Your task to perform on an android device: turn on bluetooth scan Image 0: 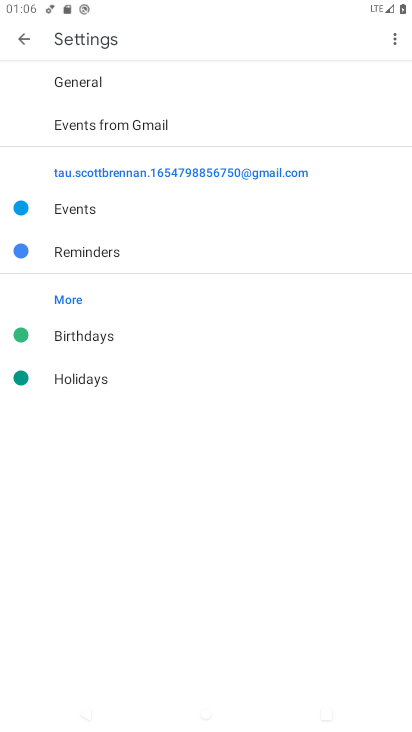
Step 0: press home button
Your task to perform on an android device: turn on bluetooth scan Image 1: 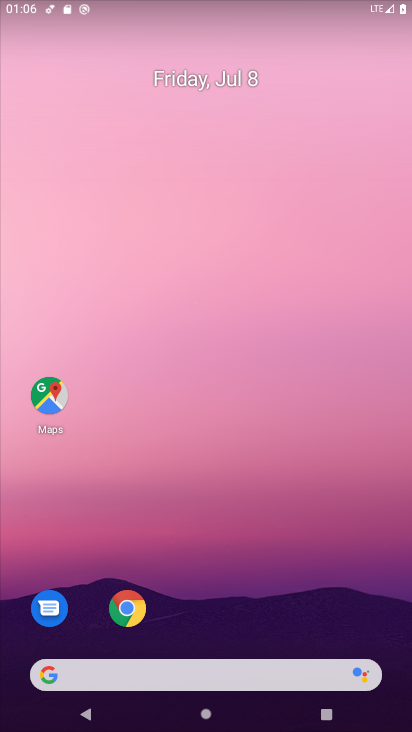
Step 1: drag from (241, 628) to (276, 232)
Your task to perform on an android device: turn on bluetooth scan Image 2: 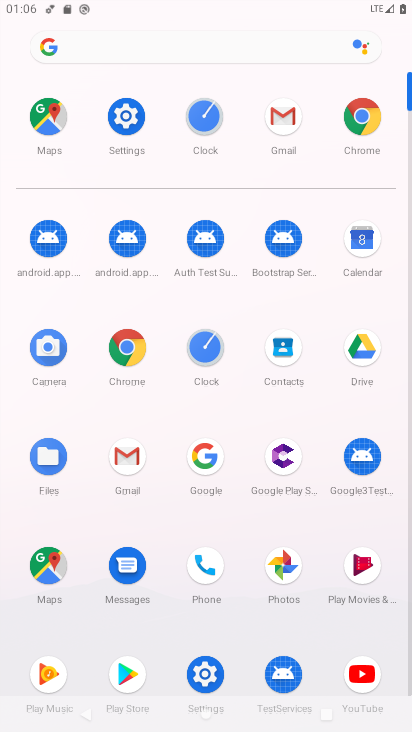
Step 2: click (127, 110)
Your task to perform on an android device: turn on bluetooth scan Image 3: 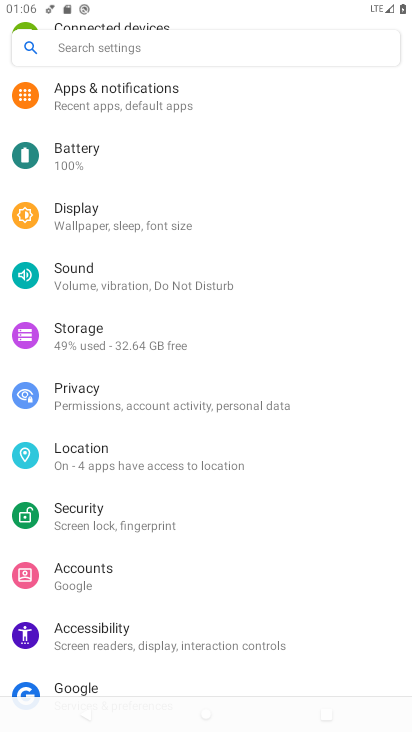
Step 3: click (283, 722)
Your task to perform on an android device: turn on bluetooth scan Image 4: 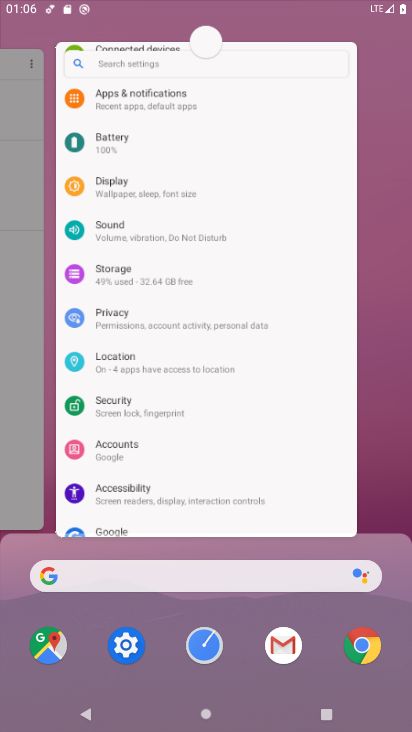
Step 4: click (393, 438)
Your task to perform on an android device: turn on bluetooth scan Image 5: 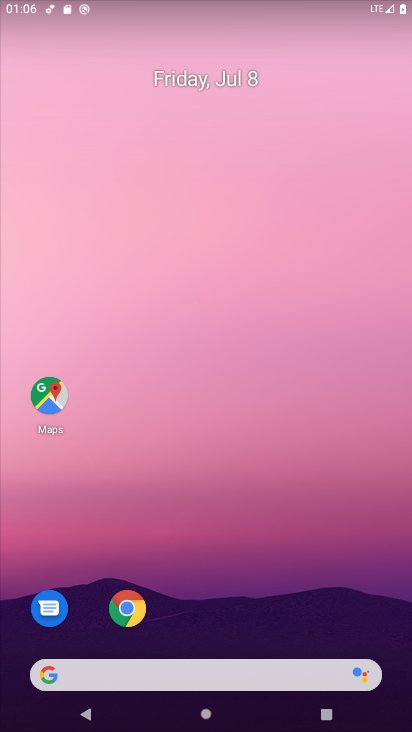
Step 5: click (326, 480)
Your task to perform on an android device: turn on bluetooth scan Image 6: 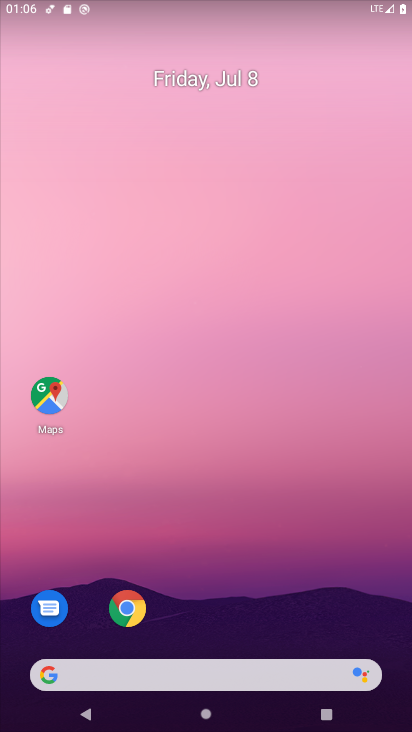
Step 6: drag from (216, 659) to (216, 241)
Your task to perform on an android device: turn on bluetooth scan Image 7: 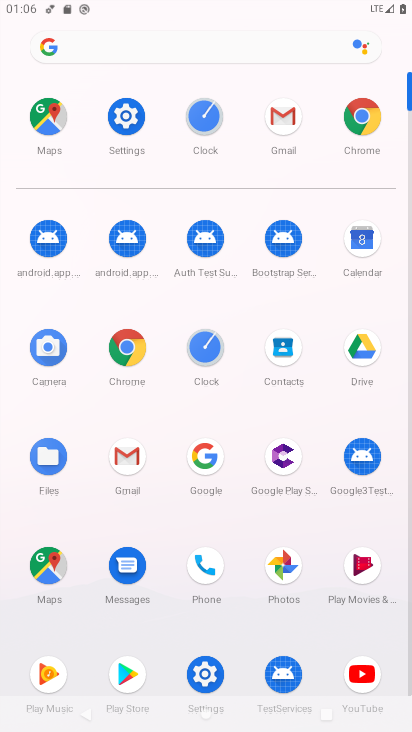
Step 7: click (128, 110)
Your task to perform on an android device: turn on bluetooth scan Image 8: 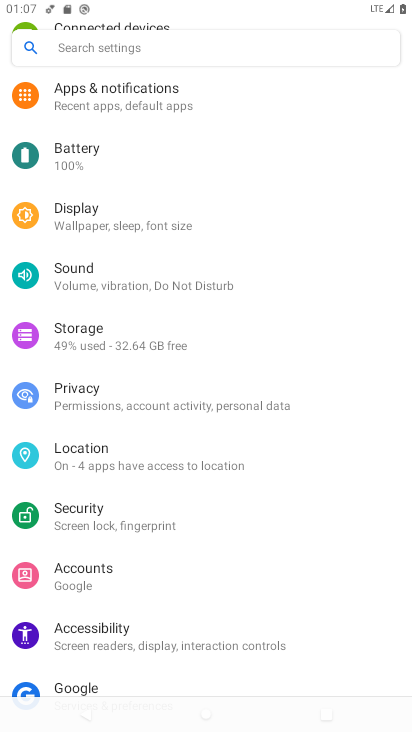
Step 8: click (123, 44)
Your task to perform on an android device: turn on bluetooth scan Image 9: 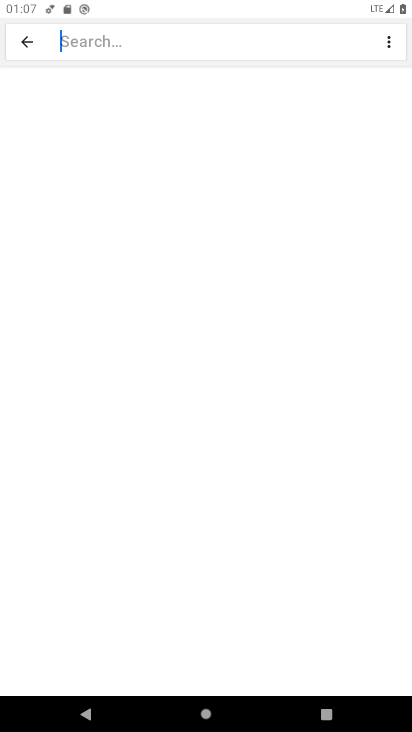
Step 9: type " bluetooth scan "
Your task to perform on an android device: turn on bluetooth scan Image 10: 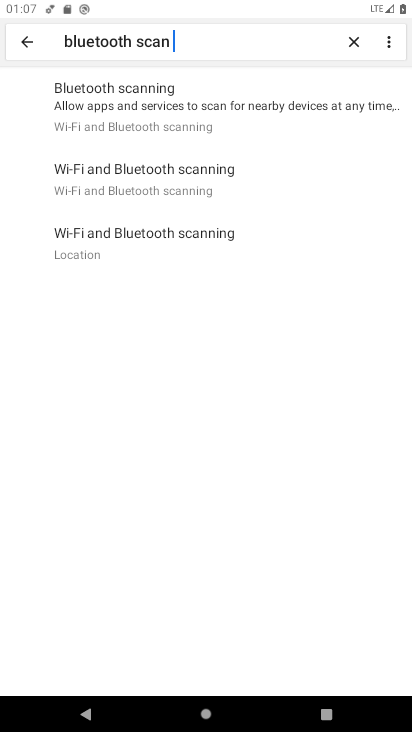
Step 10: click (83, 106)
Your task to perform on an android device: turn on bluetooth scan Image 11: 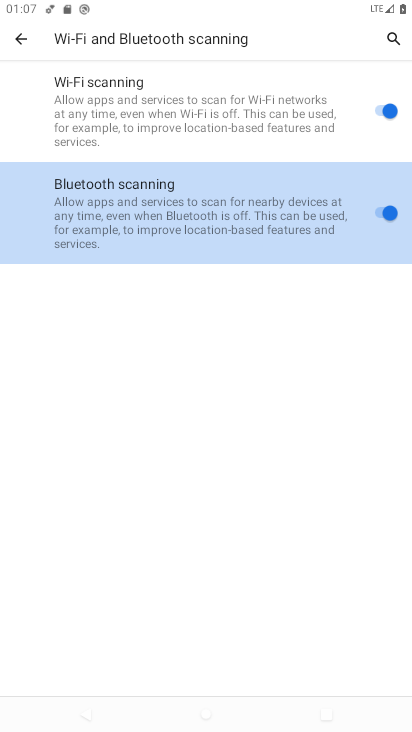
Step 11: task complete